Your task to perform on an android device: Open the calendar and show me this week's events? Image 0: 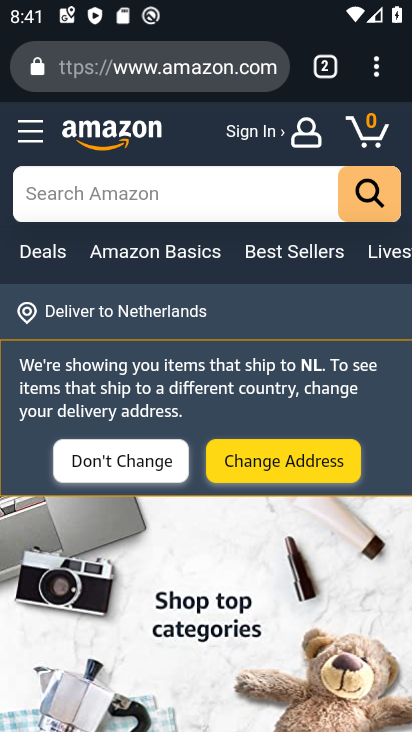
Step 0: press home button
Your task to perform on an android device: Open the calendar and show me this week's events? Image 1: 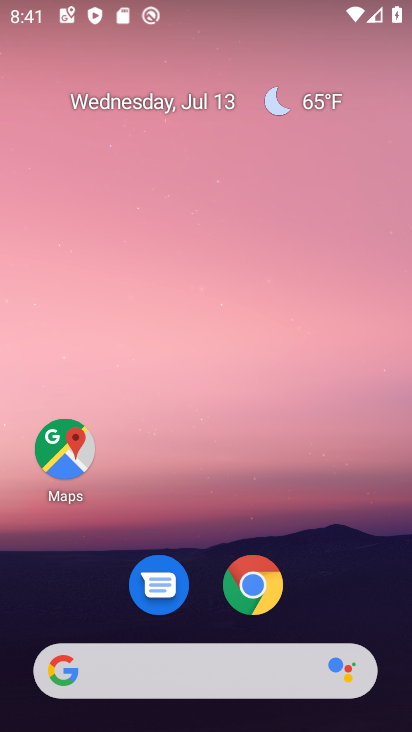
Step 1: drag from (343, 557) to (260, 2)
Your task to perform on an android device: Open the calendar and show me this week's events? Image 2: 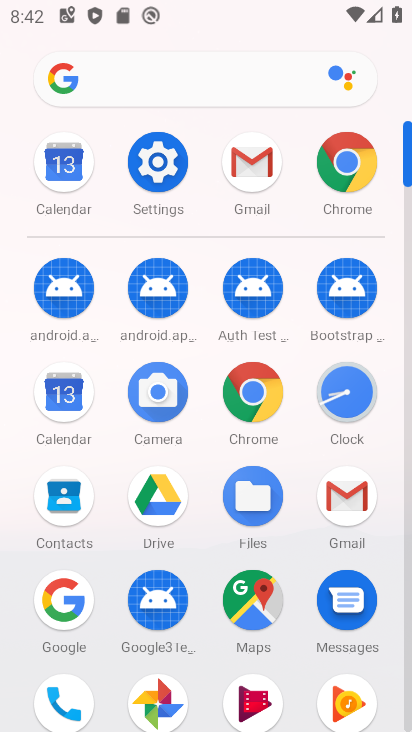
Step 2: click (68, 164)
Your task to perform on an android device: Open the calendar and show me this week's events? Image 3: 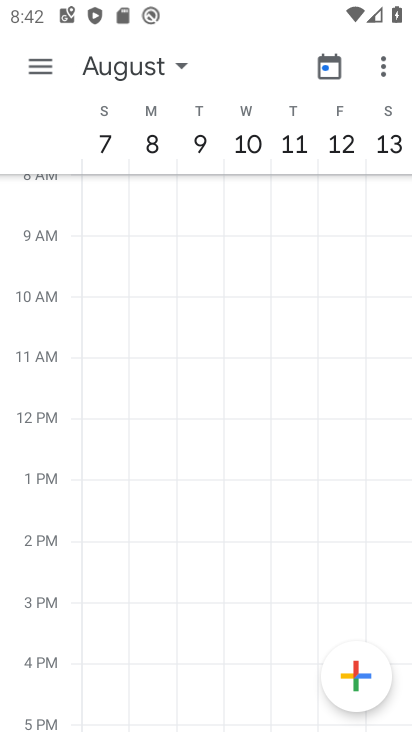
Step 3: task complete